Your task to perform on an android device: Open the Play Movies app and select the watchlist tab. Image 0: 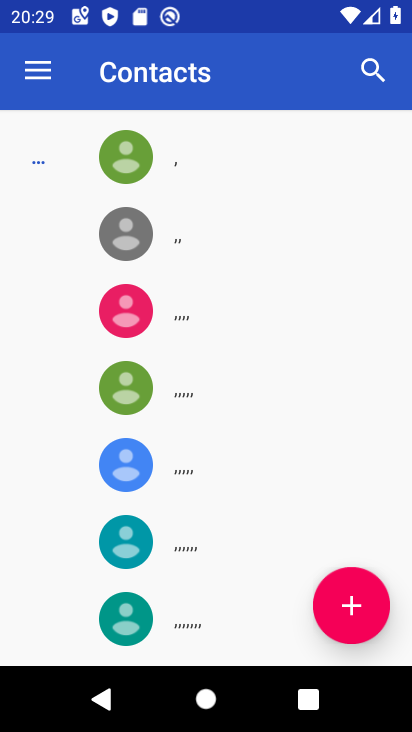
Step 0: press home button
Your task to perform on an android device: Open the Play Movies app and select the watchlist tab. Image 1: 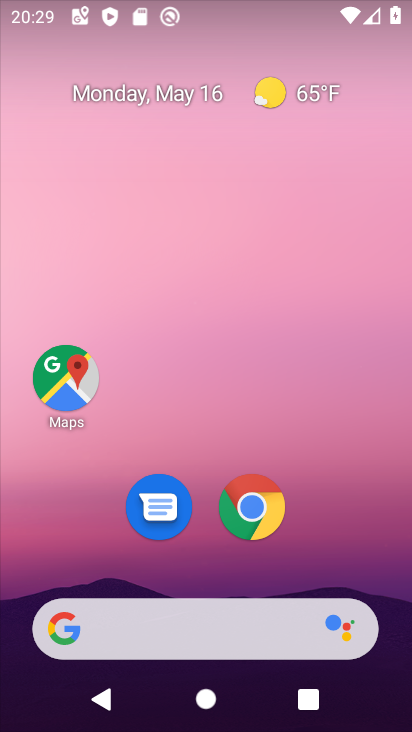
Step 1: drag from (230, 574) to (288, 19)
Your task to perform on an android device: Open the Play Movies app and select the watchlist tab. Image 2: 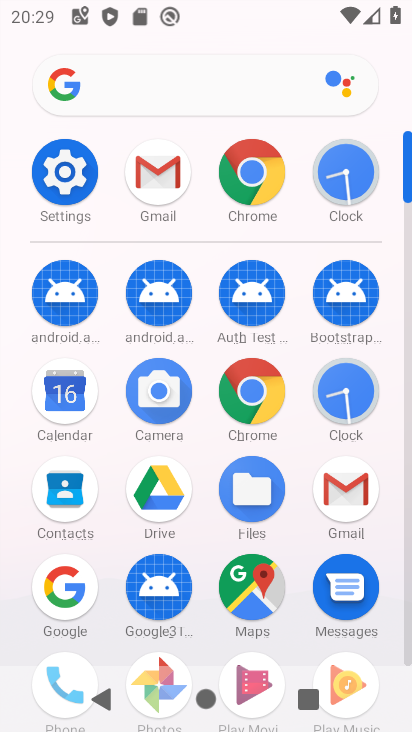
Step 2: drag from (212, 639) to (185, 366)
Your task to perform on an android device: Open the Play Movies app and select the watchlist tab. Image 3: 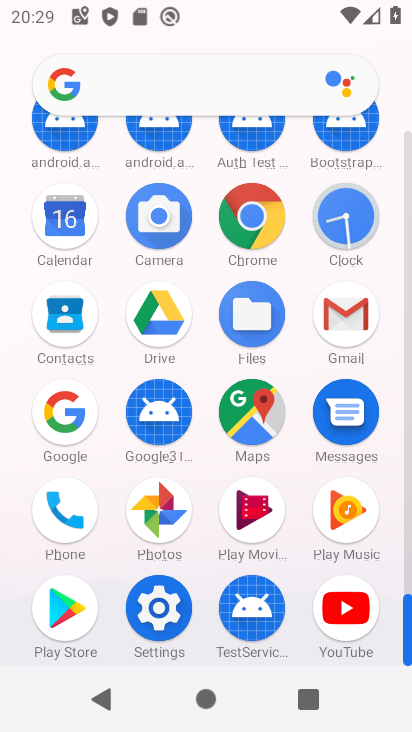
Step 3: click (243, 498)
Your task to perform on an android device: Open the Play Movies app and select the watchlist tab. Image 4: 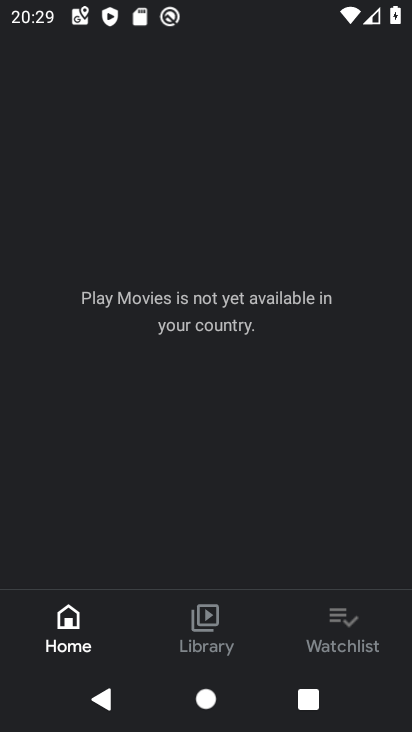
Step 4: click (320, 622)
Your task to perform on an android device: Open the Play Movies app and select the watchlist tab. Image 5: 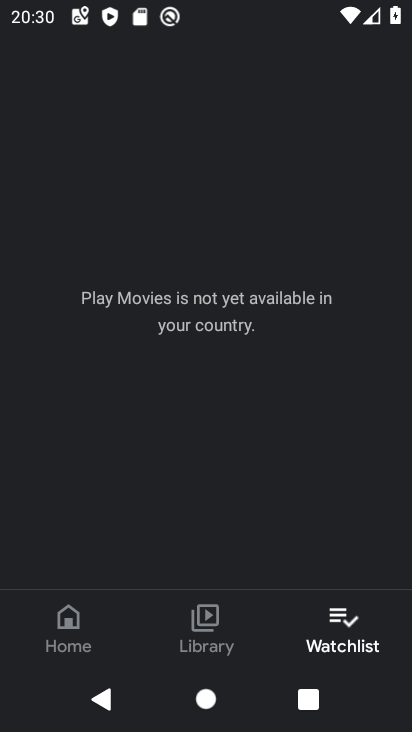
Step 5: task complete